Your task to perform on an android device: Open maps Image 0: 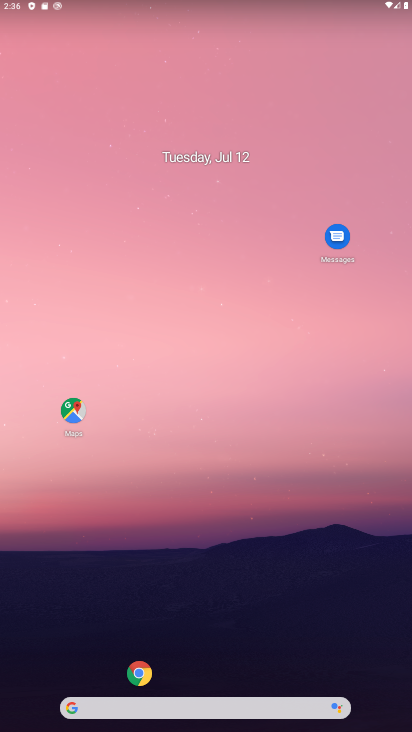
Step 0: click (70, 407)
Your task to perform on an android device: Open maps Image 1: 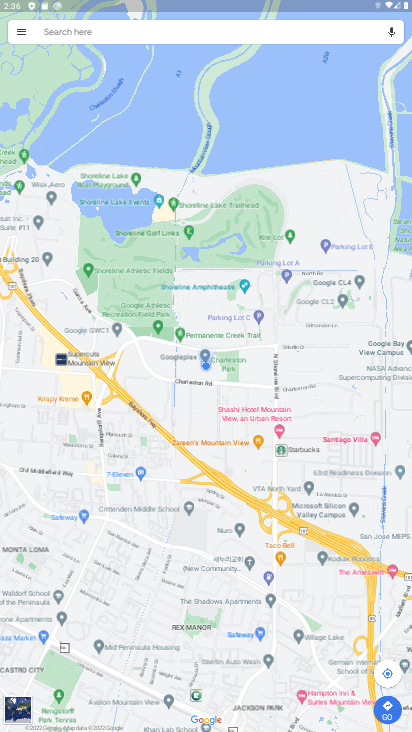
Step 1: task complete